Your task to perform on an android device: add a label to a message in the gmail app Image 0: 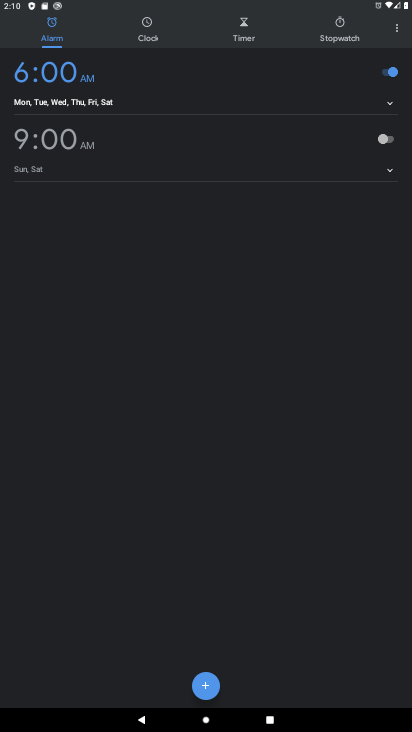
Step 0: press home button
Your task to perform on an android device: add a label to a message in the gmail app Image 1: 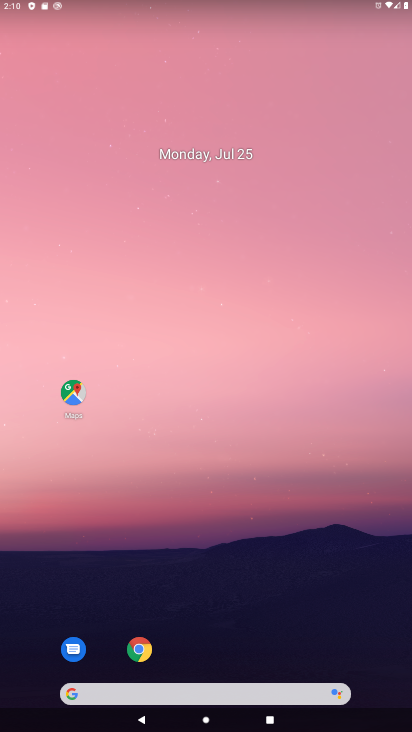
Step 1: drag from (378, 669) to (355, 119)
Your task to perform on an android device: add a label to a message in the gmail app Image 2: 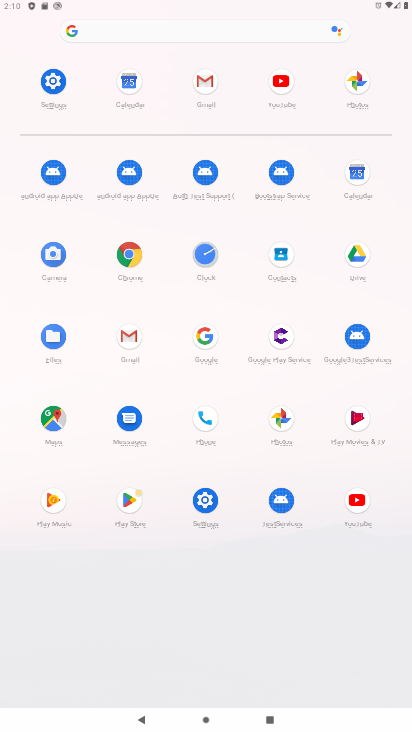
Step 2: click (129, 335)
Your task to perform on an android device: add a label to a message in the gmail app Image 3: 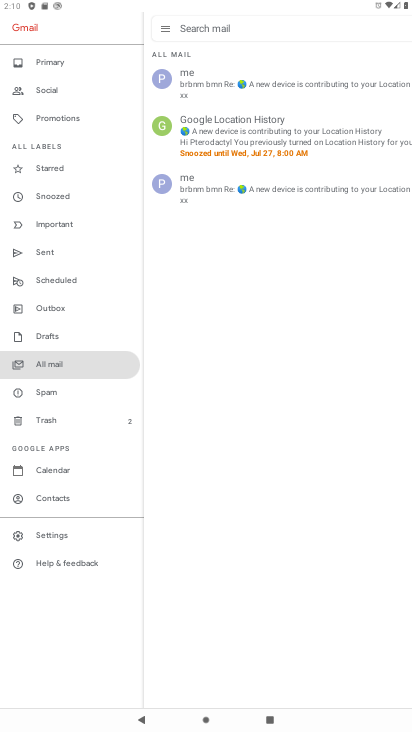
Step 3: click (268, 77)
Your task to perform on an android device: add a label to a message in the gmail app Image 4: 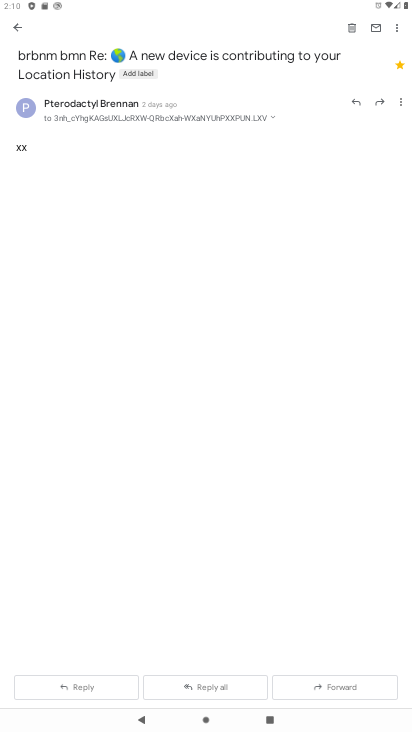
Step 4: click (396, 30)
Your task to perform on an android device: add a label to a message in the gmail app Image 5: 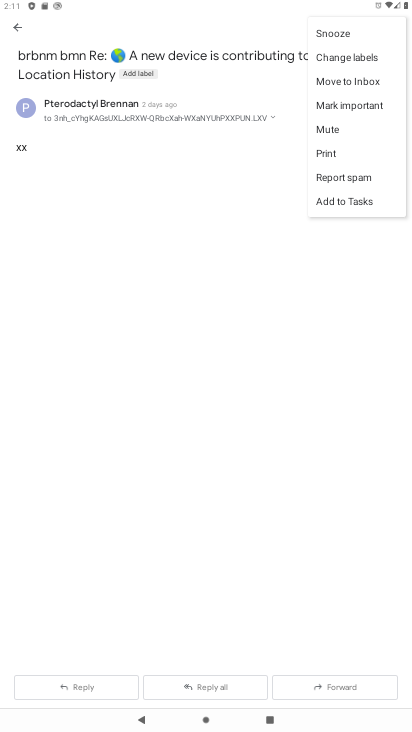
Step 5: click (336, 59)
Your task to perform on an android device: add a label to a message in the gmail app Image 6: 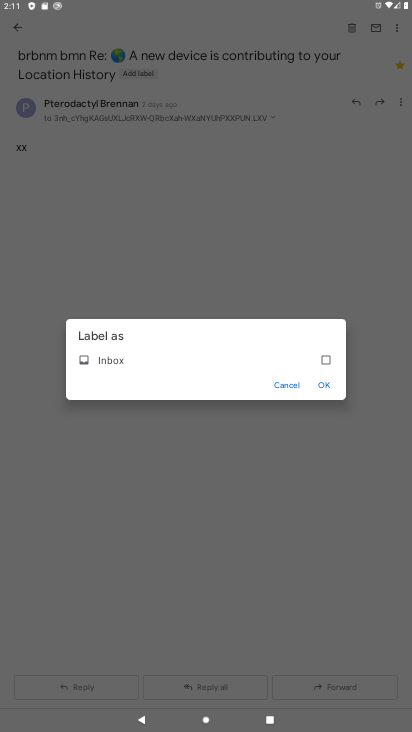
Step 6: click (321, 361)
Your task to perform on an android device: add a label to a message in the gmail app Image 7: 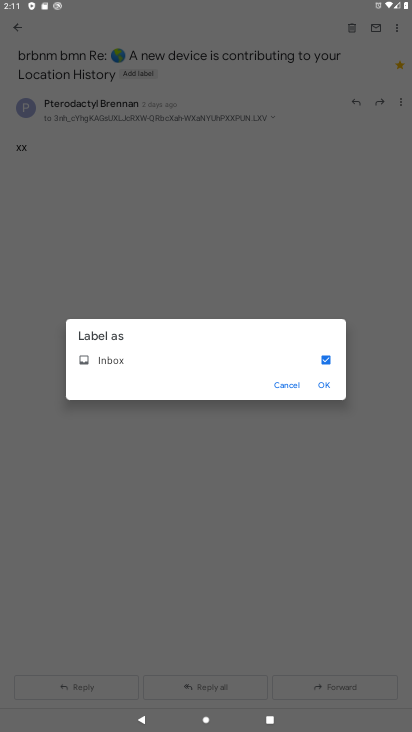
Step 7: click (327, 381)
Your task to perform on an android device: add a label to a message in the gmail app Image 8: 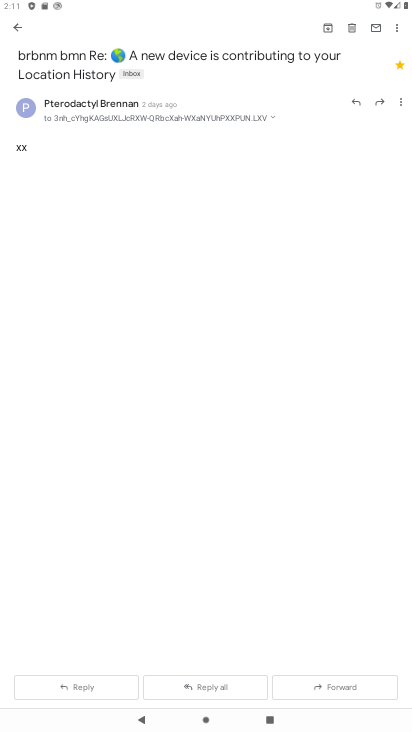
Step 8: task complete